Your task to perform on an android device: View the shopping cart on bestbuy.com. Search for "usb-a to usb-b" on bestbuy.com, select the first entry, and add it to the cart. Image 0: 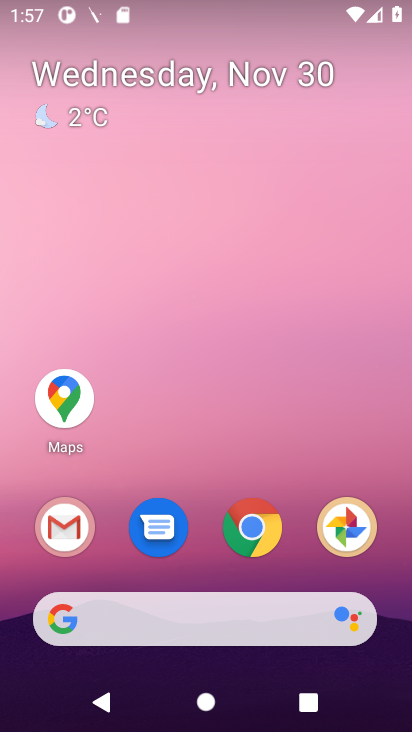
Step 0: press home button
Your task to perform on an android device: View the shopping cart on bestbuy.com. Search for "usb-a to usb-b" on bestbuy.com, select the first entry, and add it to the cart. Image 1: 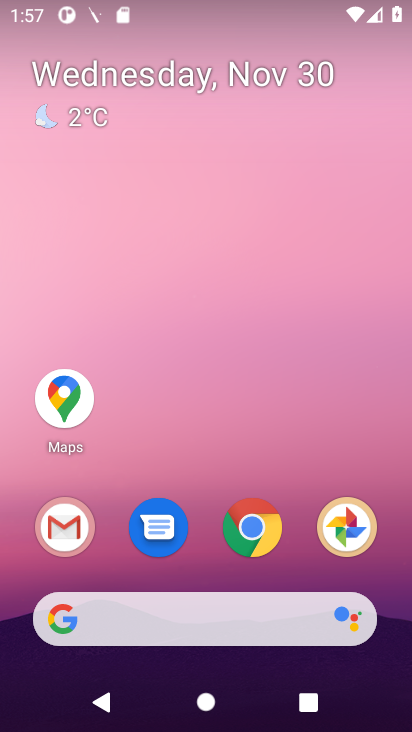
Step 1: click (259, 532)
Your task to perform on an android device: View the shopping cart on bestbuy.com. Search for "usb-a to usb-b" on bestbuy.com, select the first entry, and add it to the cart. Image 2: 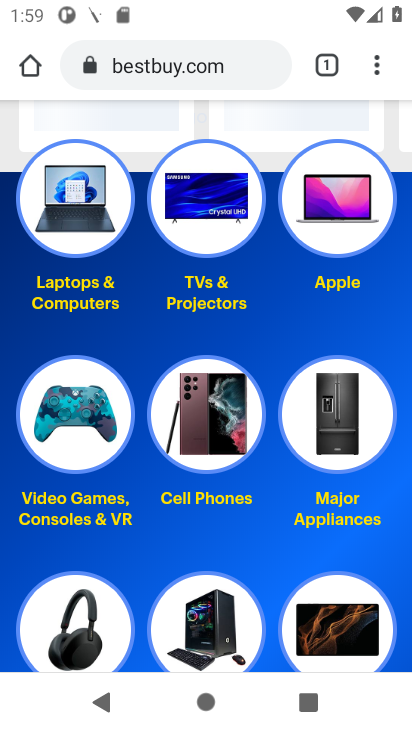
Step 2: click (151, 72)
Your task to perform on an android device: View the shopping cart on bestbuy.com. Search for "usb-a to usb-b" on bestbuy.com, select the first entry, and add it to the cart. Image 3: 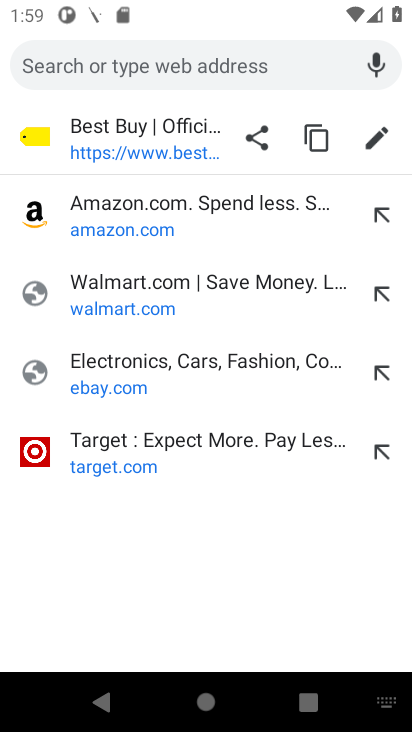
Step 3: click (126, 150)
Your task to perform on an android device: View the shopping cart on bestbuy.com. Search for "usb-a to usb-b" on bestbuy.com, select the first entry, and add it to the cart. Image 4: 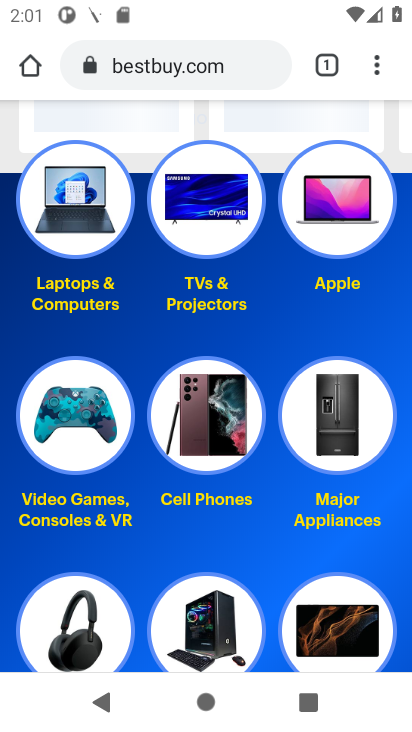
Step 4: task complete